Your task to perform on an android device: toggle data saver in the chrome app Image 0: 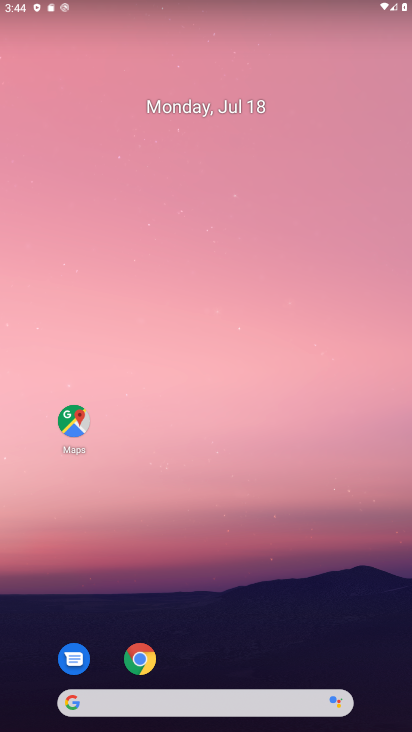
Step 0: drag from (307, 705) to (317, 96)
Your task to perform on an android device: toggle data saver in the chrome app Image 1: 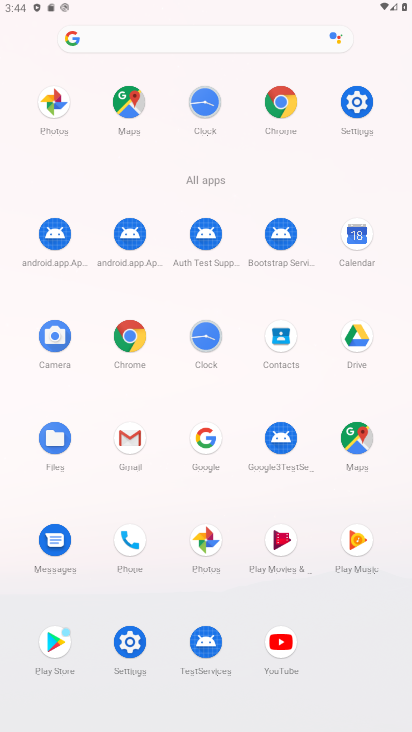
Step 1: click (135, 341)
Your task to perform on an android device: toggle data saver in the chrome app Image 2: 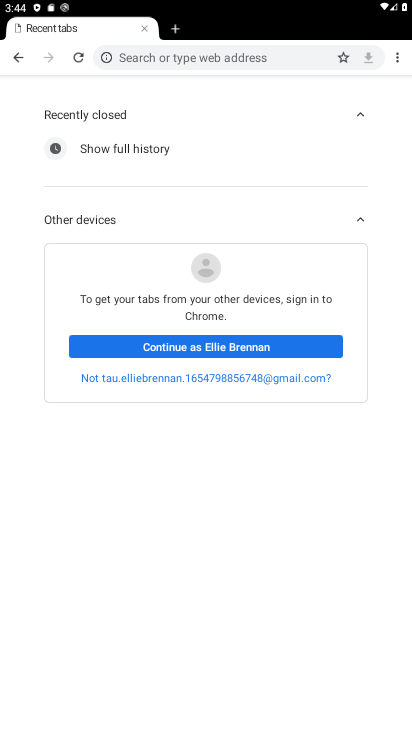
Step 2: click (396, 51)
Your task to perform on an android device: toggle data saver in the chrome app Image 3: 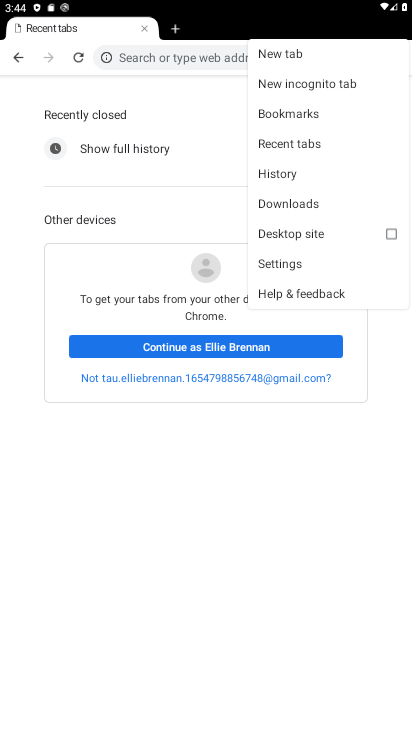
Step 3: click (300, 265)
Your task to perform on an android device: toggle data saver in the chrome app Image 4: 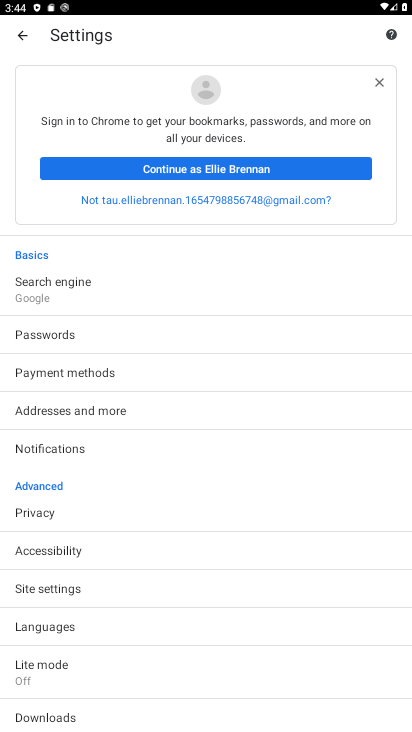
Step 4: click (82, 678)
Your task to perform on an android device: toggle data saver in the chrome app Image 5: 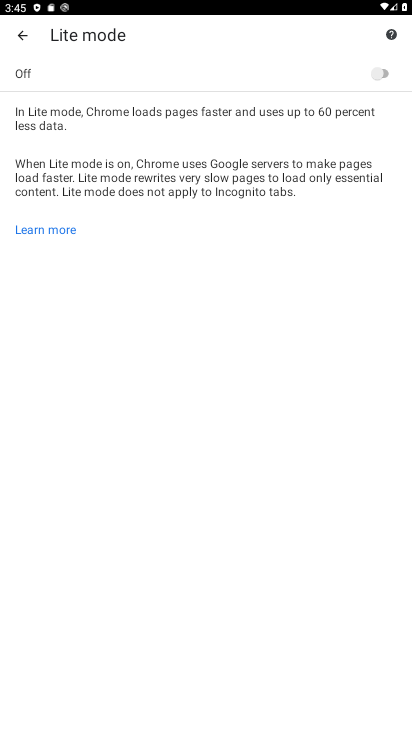
Step 5: click (388, 76)
Your task to perform on an android device: toggle data saver in the chrome app Image 6: 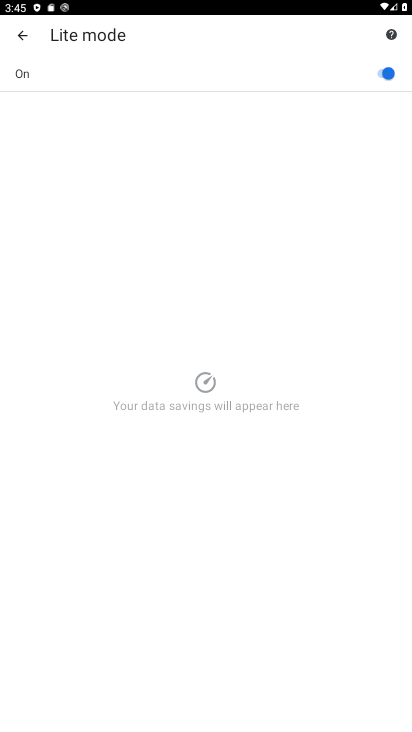
Step 6: task complete